Your task to perform on an android device: Show me popular games on the Play Store Image 0: 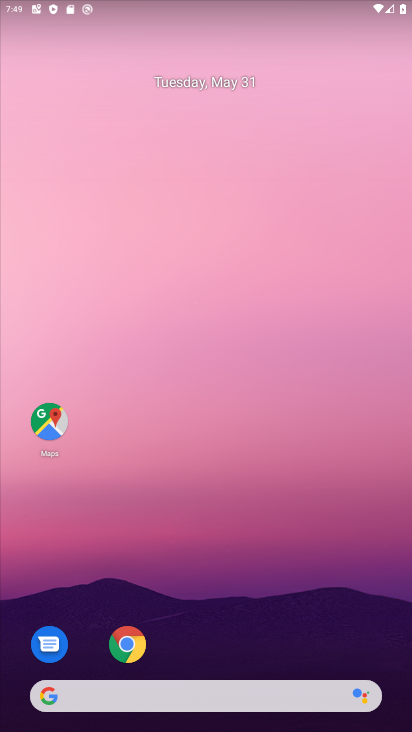
Step 0: drag from (303, 731) to (230, 116)
Your task to perform on an android device: Show me popular games on the Play Store Image 1: 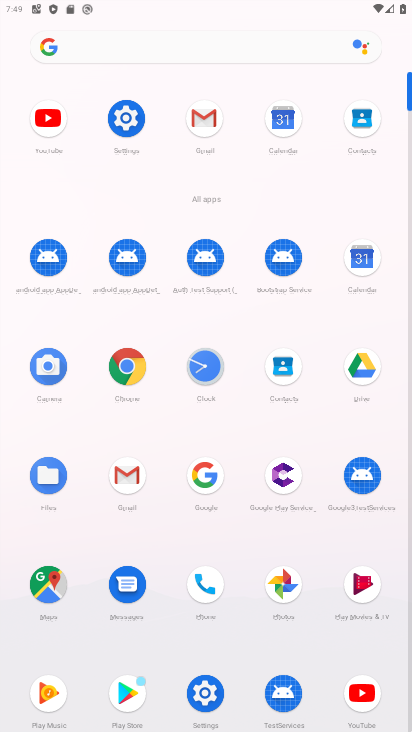
Step 1: click (130, 689)
Your task to perform on an android device: Show me popular games on the Play Store Image 2: 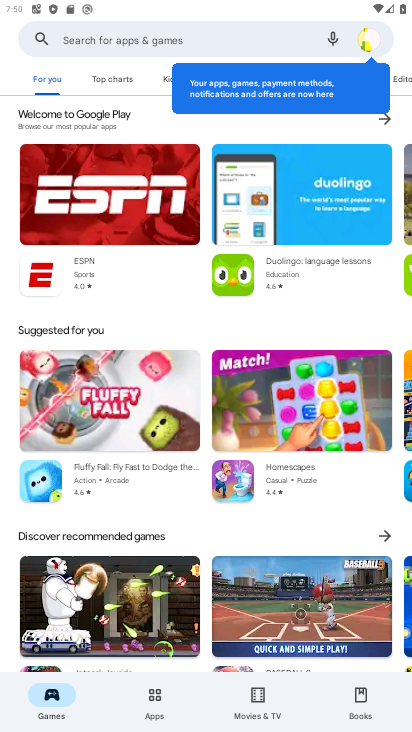
Step 2: task complete